Your task to perform on an android device: Open privacy settings Image 0: 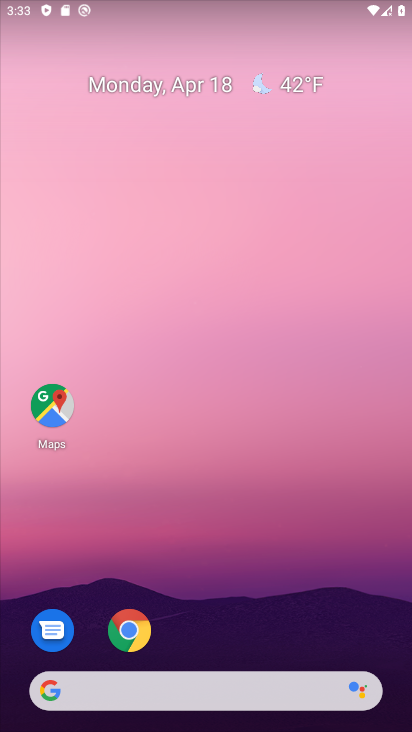
Step 0: drag from (268, 456) to (264, 352)
Your task to perform on an android device: Open privacy settings Image 1: 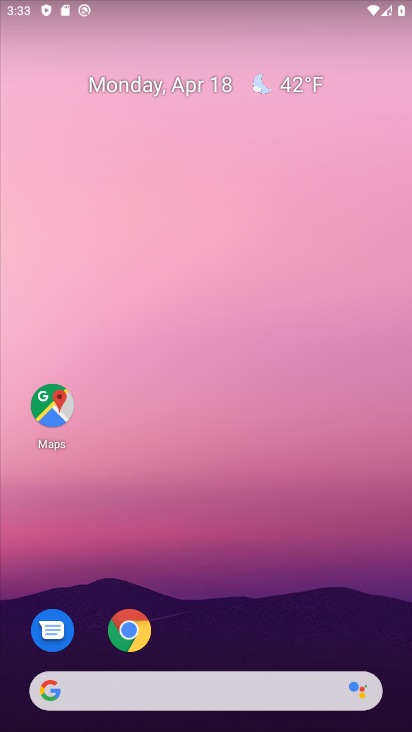
Step 1: drag from (364, 602) to (335, 318)
Your task to perform on an android device: Open privacy settings Image 2: 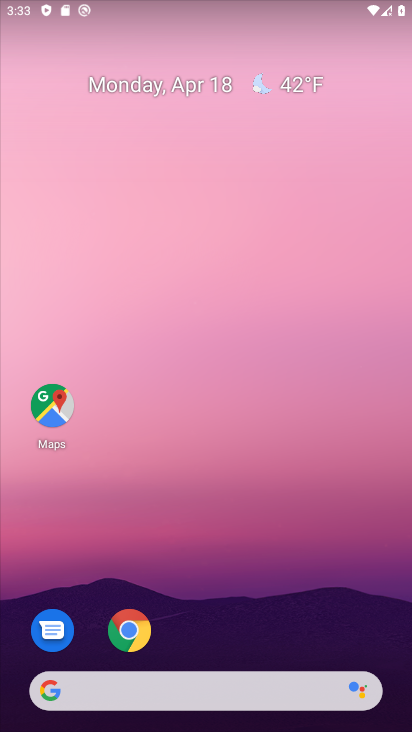
Step 2: drag from (168, 643) to (274, 153)
Your task to perform on an android device: Open privacy settings Image 3: 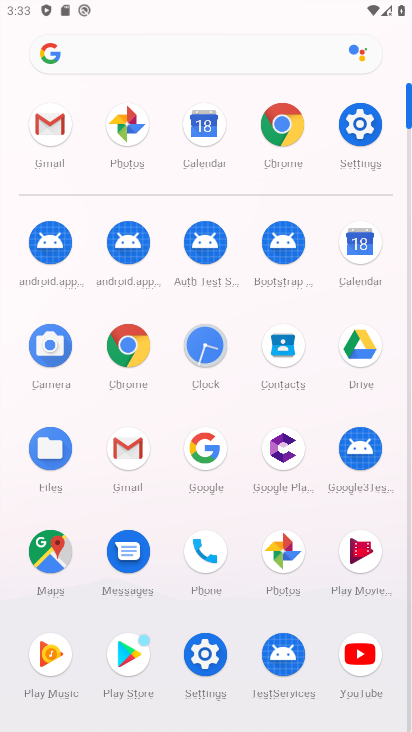
Step 3: click (276, 125)
Your task to perform on an android device: Open privacy settings Image 4: 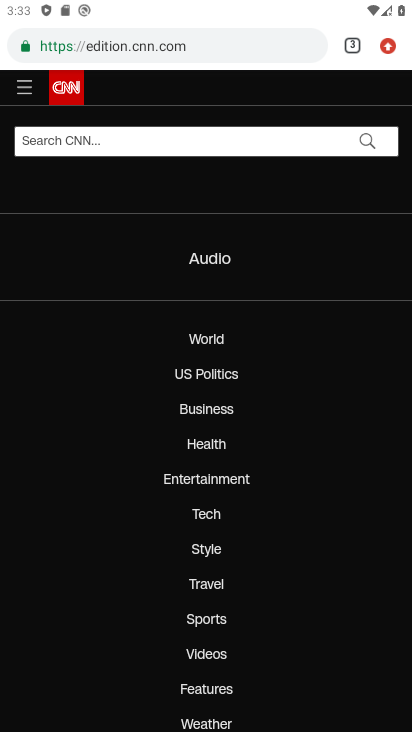
Step 4: click (390, 41)
Your task to perform on an android device: Open privacy settings Image 5: 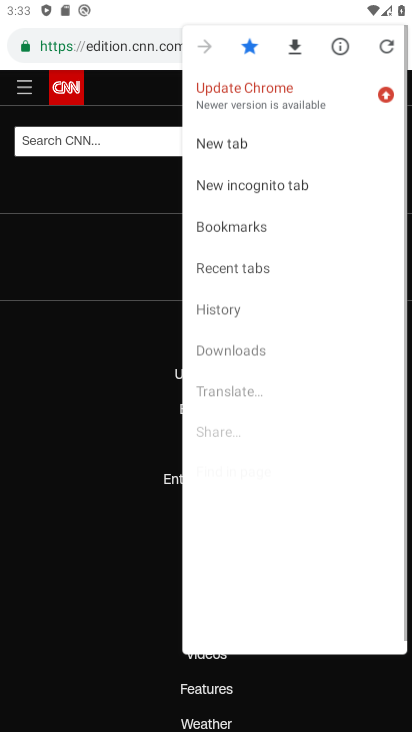
Step 5: click (389, 41)
Your task to perform on an android device: Open privacy settings Image 6: 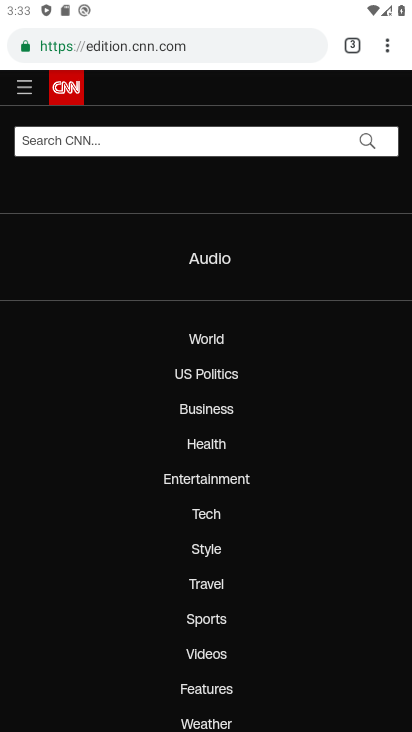
Step 6: click (379, 47)
Your task to perform on an android device: Open privacy settings Image 7: 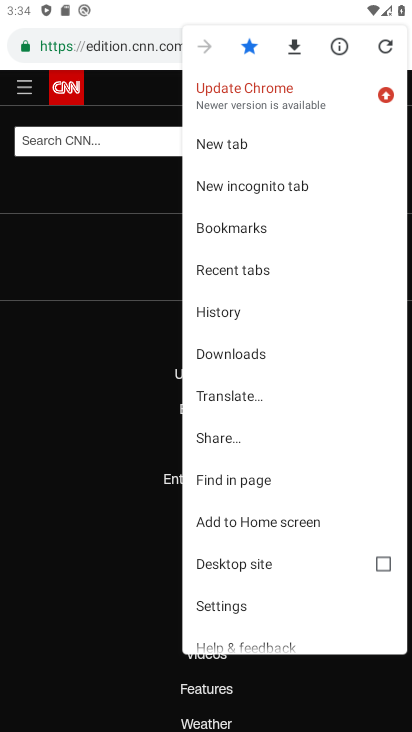
Step 7: click (376, 47)
Your task to perform on an android device: Open privacy settings Image 8: 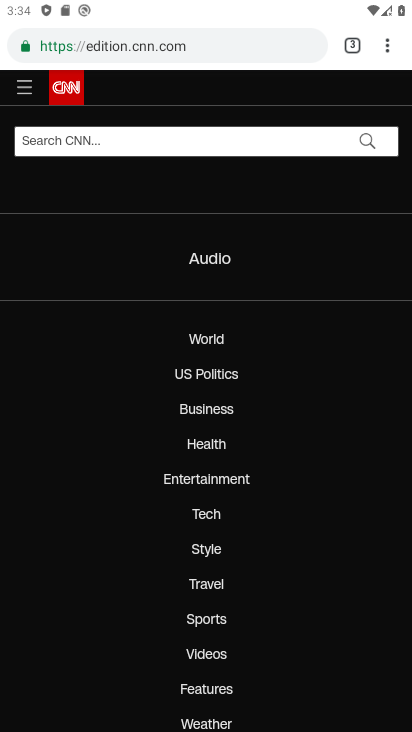
Step 8: click (390, 48)
Your task to perform on an android device: Open privacy settings Image 9: 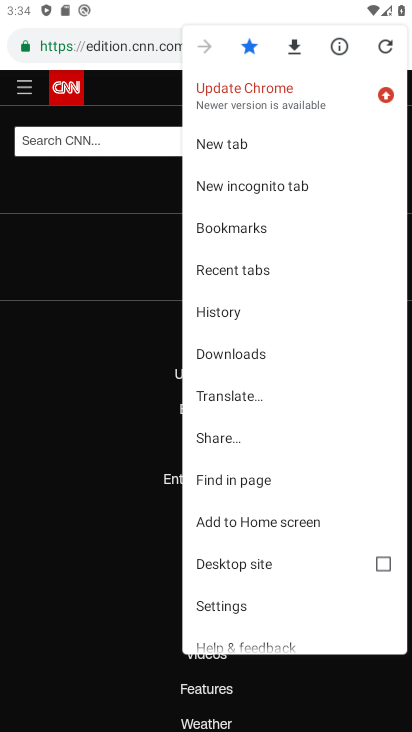
Step 9: click (249, 599)
Your task to perform on an android device: Open privacy settings Image 10: 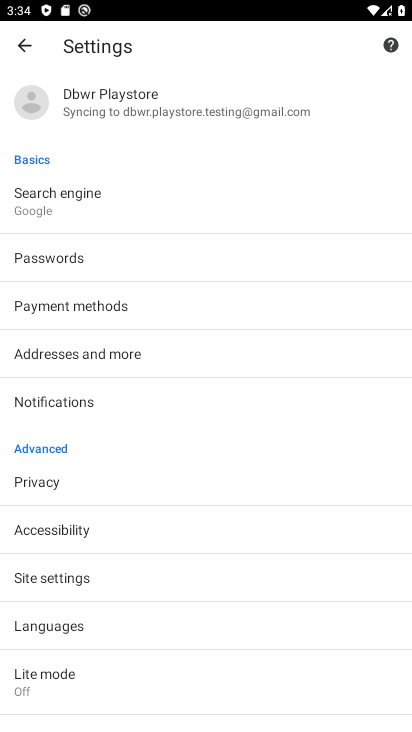
Step 10: click (121, 484)
Your task to perform on an android device: Open privacy settings Image 11: 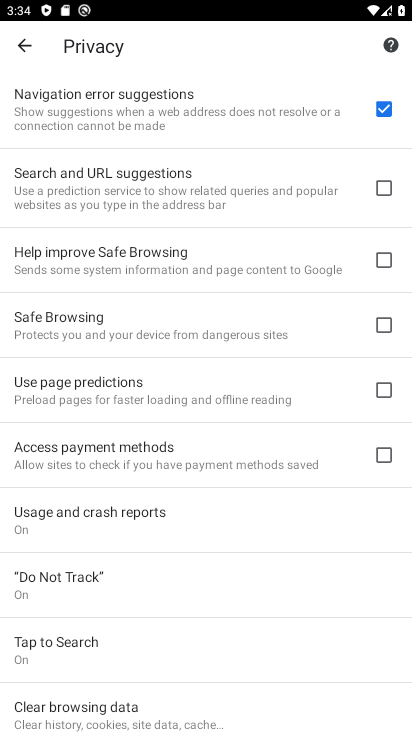
Step 11: task complete